Your task to perform on an android device: Open Android settings Image 0: 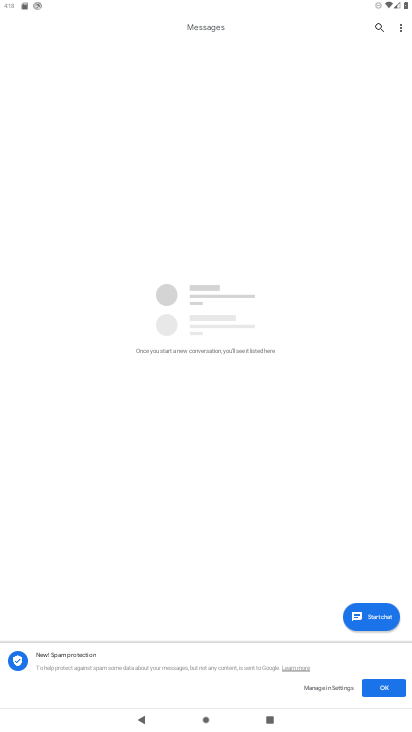
Step 0: drag from (231, 704) to (256, 125)
Your task to perform on an android device: Open Android settings Image 1: 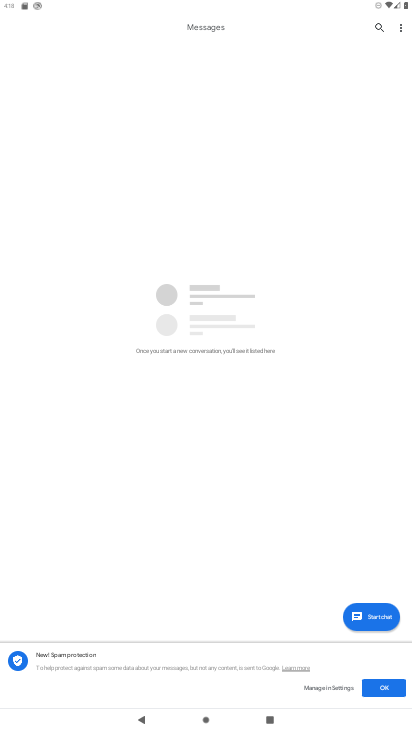
Step 1: press home button
Your task to perform on an android device: Open Android settings Image 2: 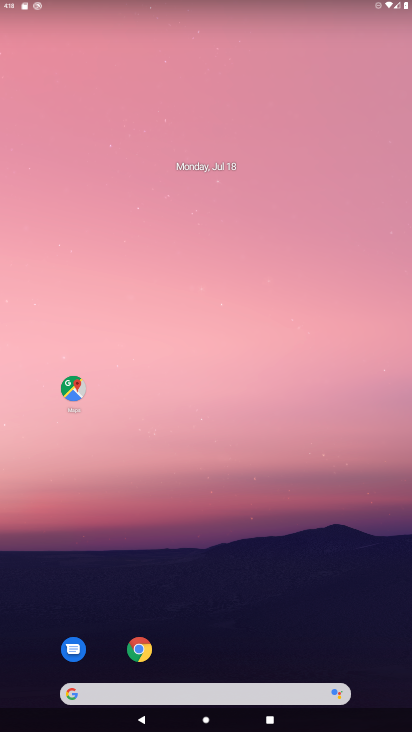
Step 2: drag from (179, 678) to (291, 102)
Your task to perform on an android device: Open Android settings Image 3: 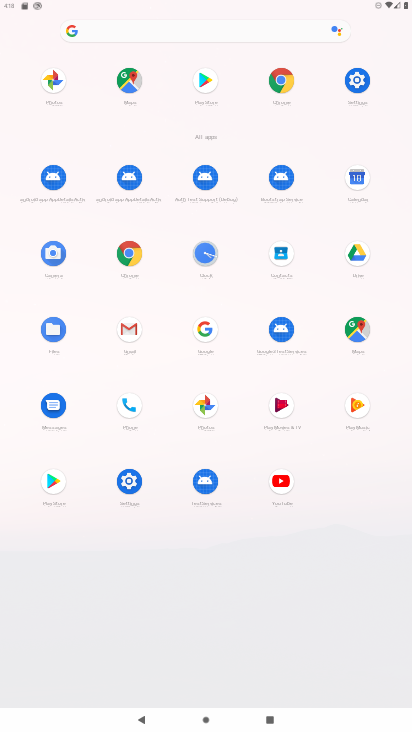
Step 3: click (131, 490)
Your task to perform on an android device: Open Android settings Image 4: 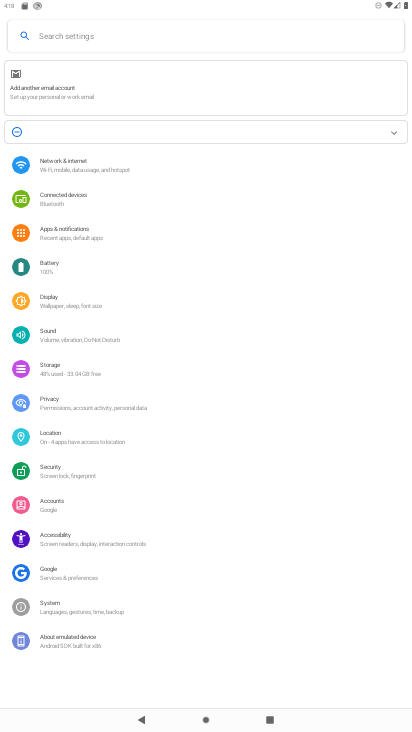
Step 4: task complete